Your task to perform on an android device: Open Google Maps Image 0: 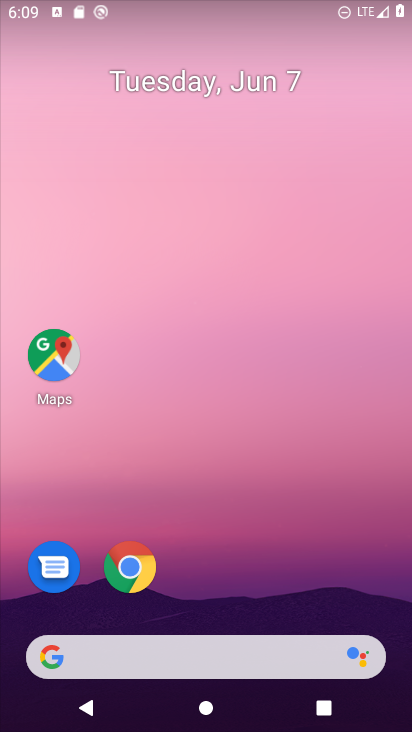
Step 0: drag from (235, 580) to (225, 1)
Your task to perform on an android device: Open Google Maps Image 1: 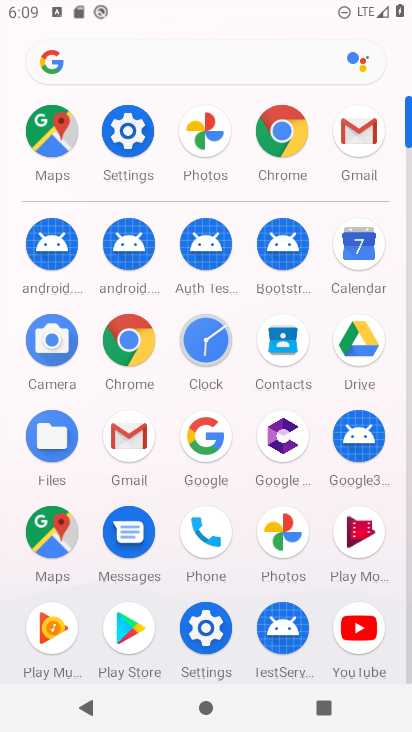
Step 1: click (63, 532)
Your task to perform on an android device: Open Google Maps Image 2: 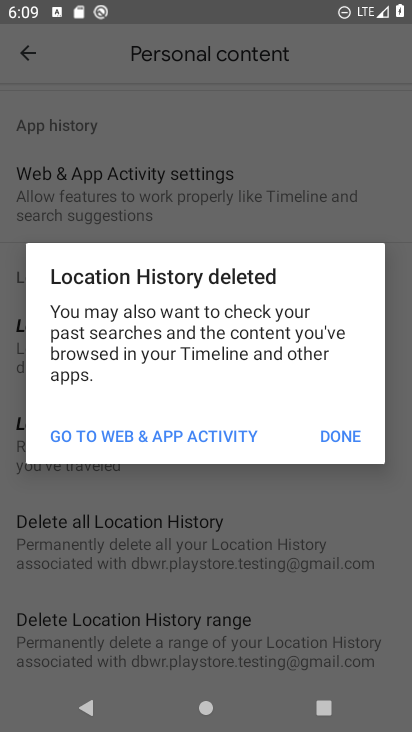
Step 2: click (340, 440)
Your task to perform on an android device: Open Google Maps Image 3: 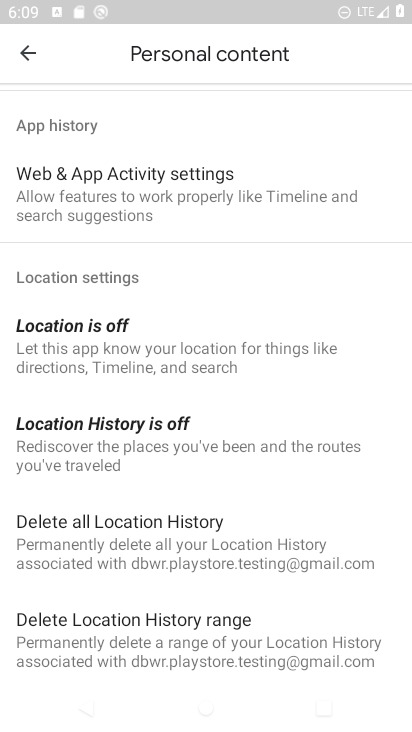
Step 3: task complete